Your task to perform on an android device: turn on notifications settings in the gmail app Image 0: 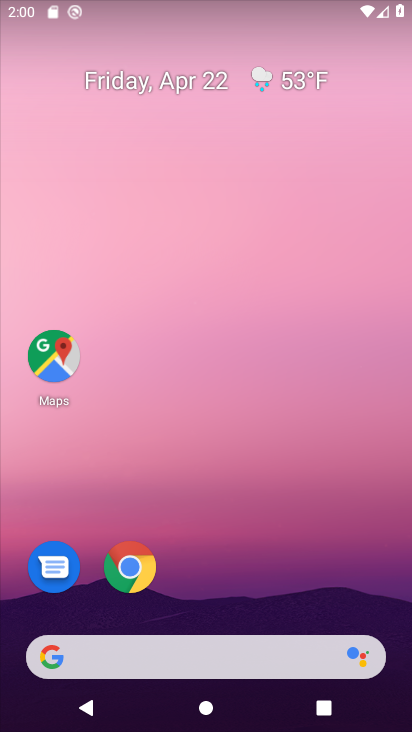
Step 0: drag from (293, 587) to (297, 104)
Your task to perform on an android device: turn on notifications settings in the gmail app Image 1: 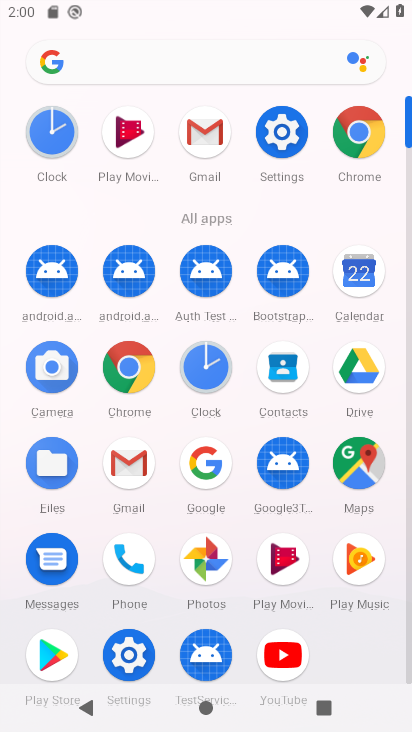
Step 1: click (206, 134)
Your task to perform on an android device: turn on notifications settings in the gmail app Image 2: 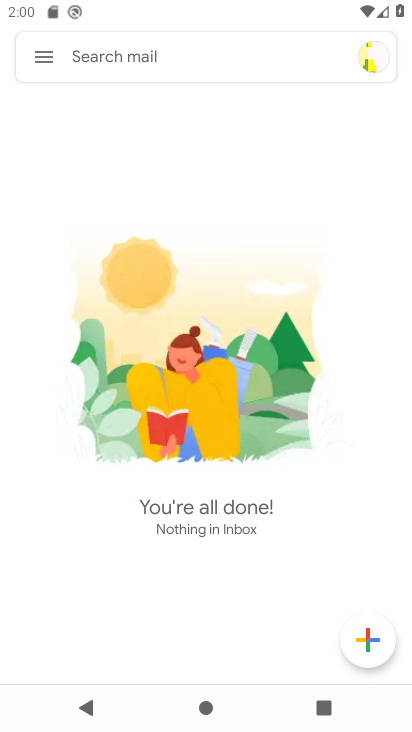
Step 2: click (43, 58)
Your task to perform on an android device: turn on notifications settings in the gmail app Image 3: 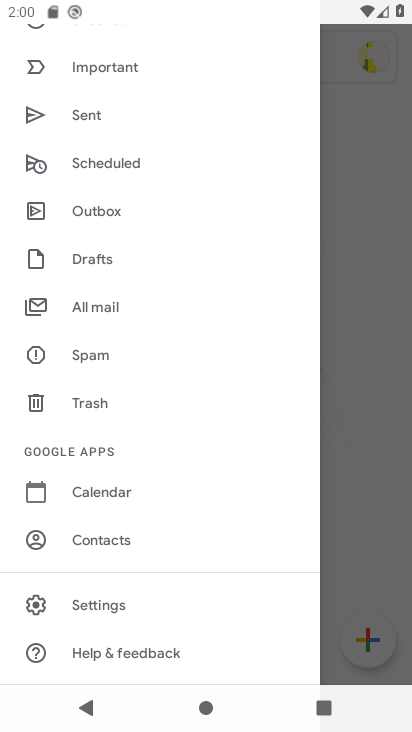
Step 3: click (134, 606)
Your task to perform on an android device: turn on notifications settings in the gmail app Image 4: 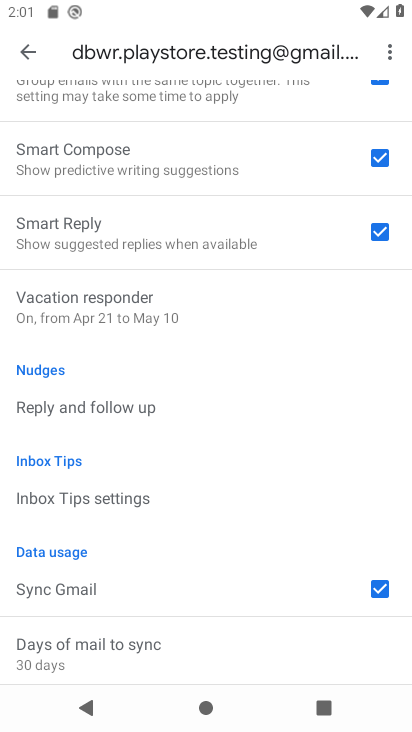
Step 4: drag from (225, 185) to (262, 533)
Your task to perform on an android device: turn on notifications settings in the gmail app Image 5: 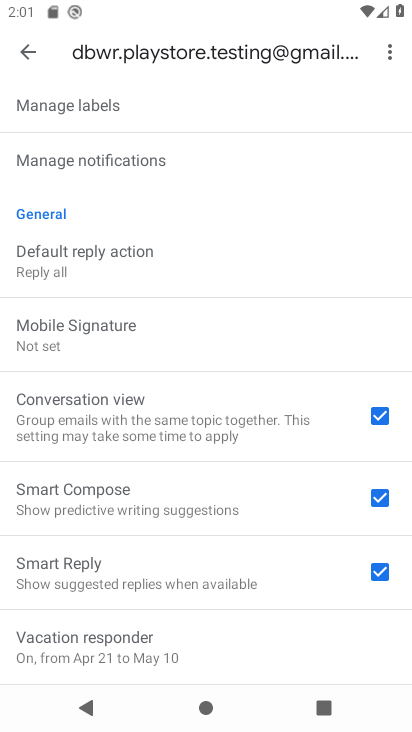
Step 5: click (179, 171)
Your task to perform on an android device: turn on notifications settings in the gmail app Image 6: 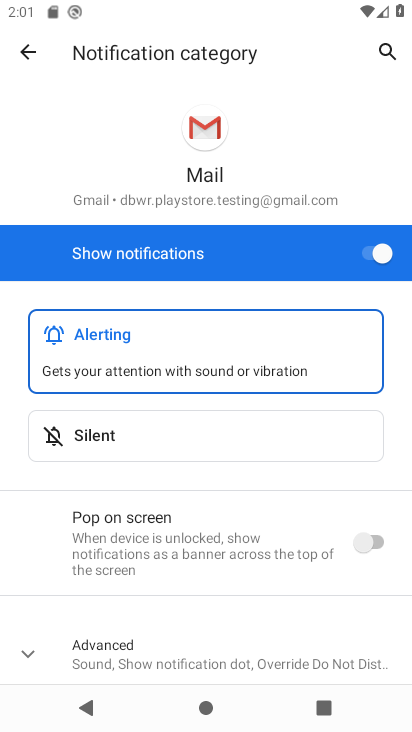
Step 6: task complete